Your task to perform on an android device: search for starred emails in the gmail app Image 0: 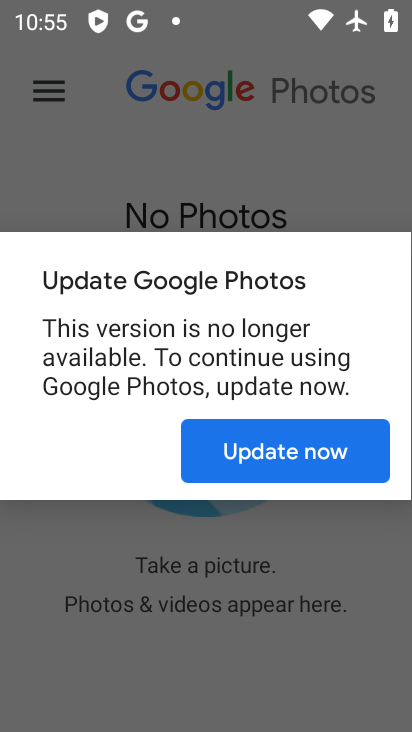
Step 0: press home button
Your task to perform on an android device: search for starred emails in the gmail app Image 1: 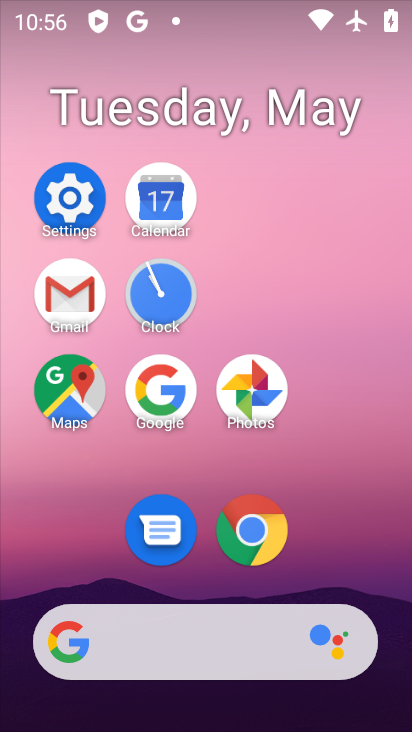
Step 1: click (62, 302)
Your task to perform on an android device: search for starred emails in the gmail app Image 2: 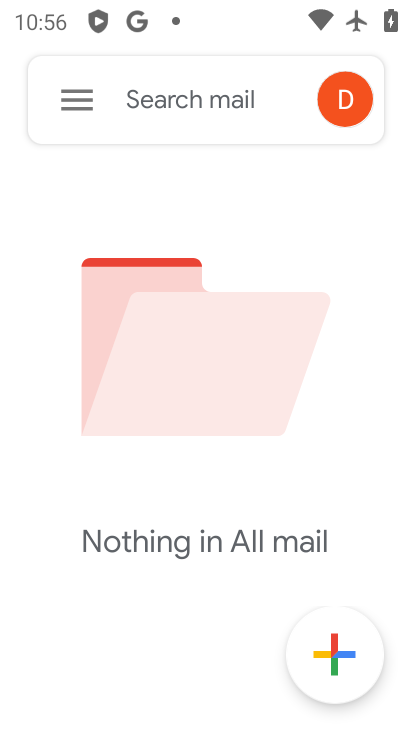
Step 2: click (66, 121)
Your task to perform on an android device: search for starred emails in the gmail app Image 3: 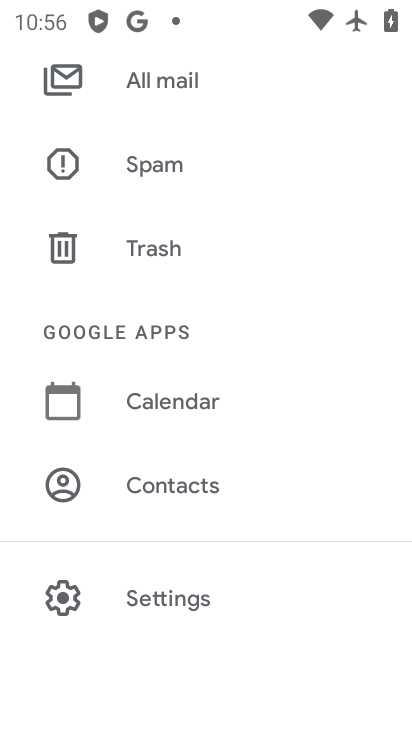
Step 3: drag from (258, 151) to (214, 612)
Your task to perform on an android device: search for starred emails in the gmail app Image 4: 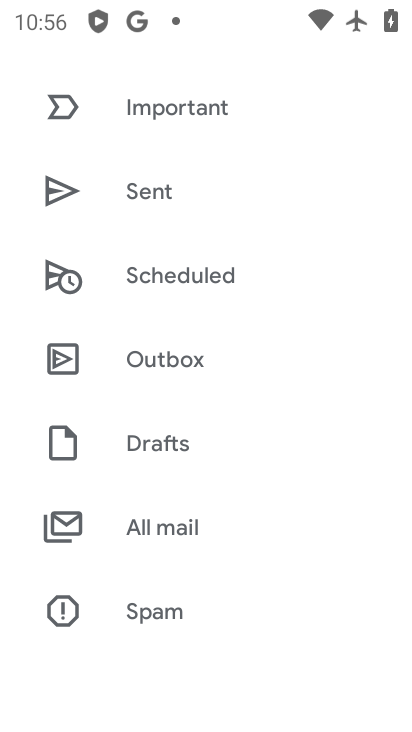
Step 4: drag from (328, 205) to (296, 553)
Your task to perform on an android device: search for starred emails in the gmail app Image 5: 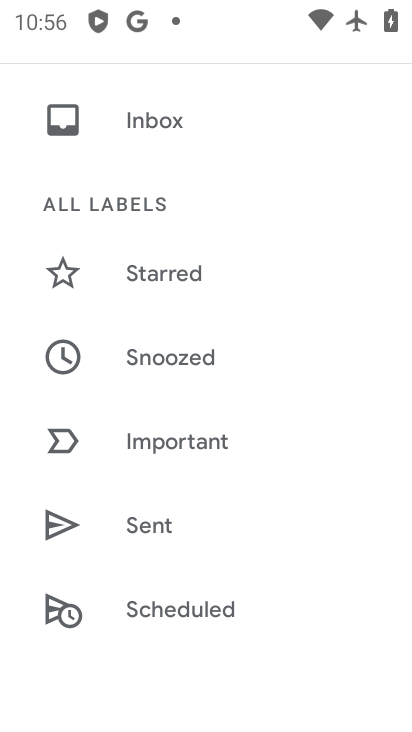
Step 5: click (178, 268)
Your task to perform on an android device: search for starred emails in the gmail app Image 6: 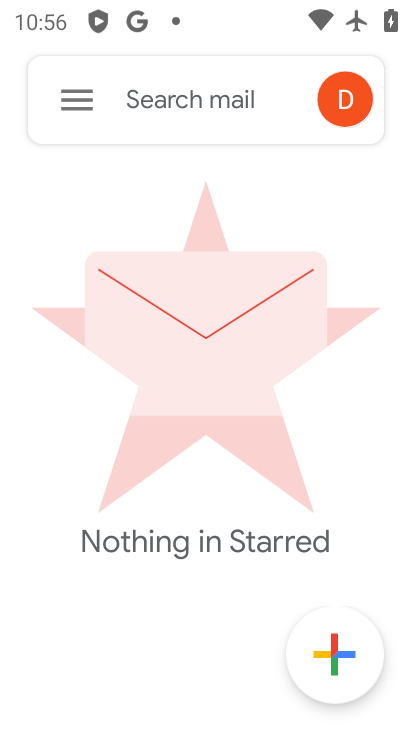
Step 6: task complete